Your task to perform on an android device: change alarm snooze length Image 0: 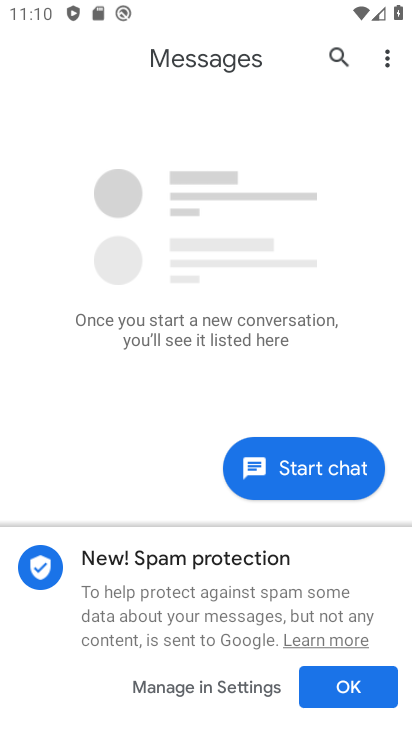
Step 0: press home button
Your task to perform on an android device: change alarm snooze length Image 1: 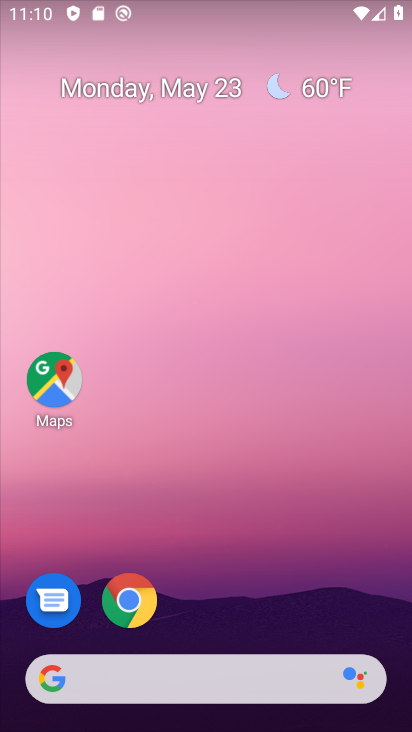
Step 1: drag from (300, 711) to (194, 131)
Your task to perform on an android device: change alarm snooze length Image 2: 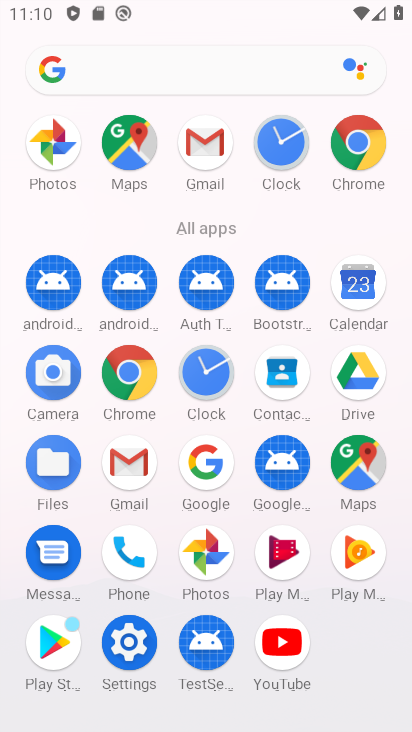
Step 2: click (203, 377)
Your task to perform on an android device: change alarm snooze length Image 3: 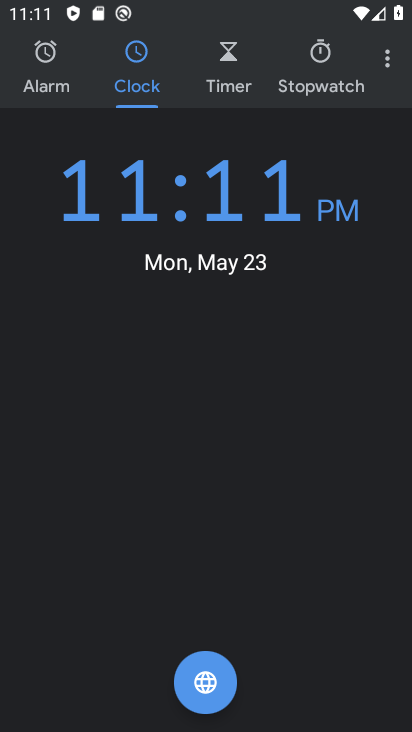
Step 3: click (385, 66)
Your task to perform on an android device: change alarm snooze length Image 4: 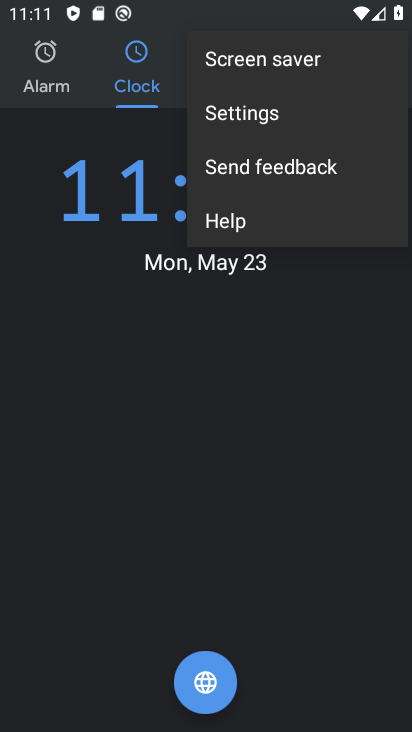
Step 4: click (241, 129)
Your task to perform on an android device: change alarm snooze length Image 5: 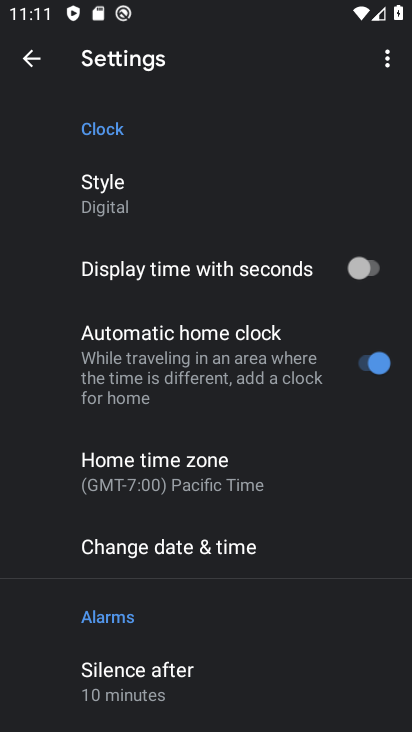
Step 5: drag from (194, 646) to (226, 380)
Your task to perform on an android device: change alarm snooze length Image 6: 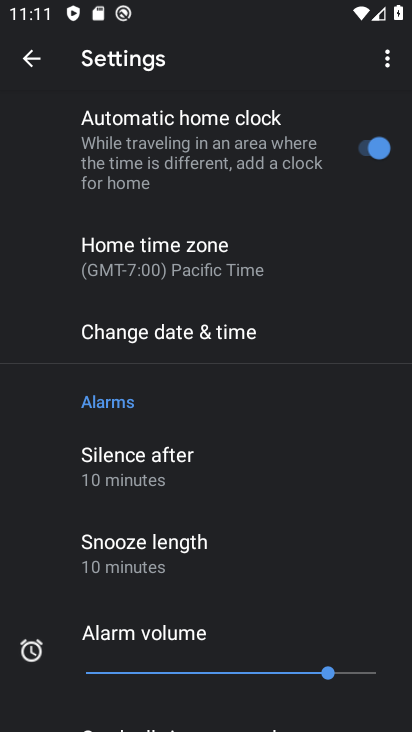
Step 6: click (206, 547)
Your task to perform on an android device: change alarm snooze length Image 7: 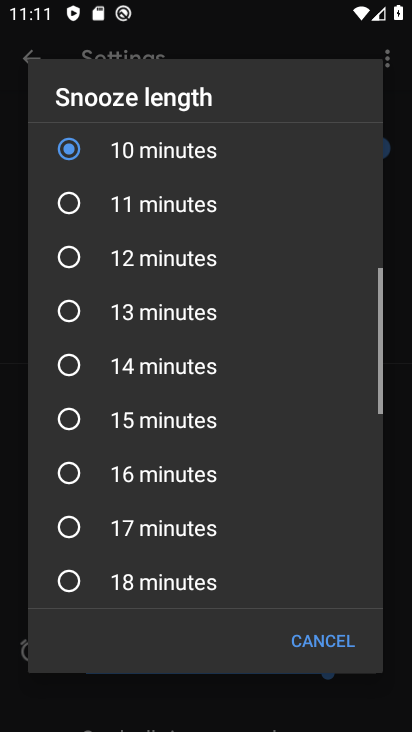
Step 7: task complete